Your task to perform on an android device: uninstall "Google Duo" Image 0: 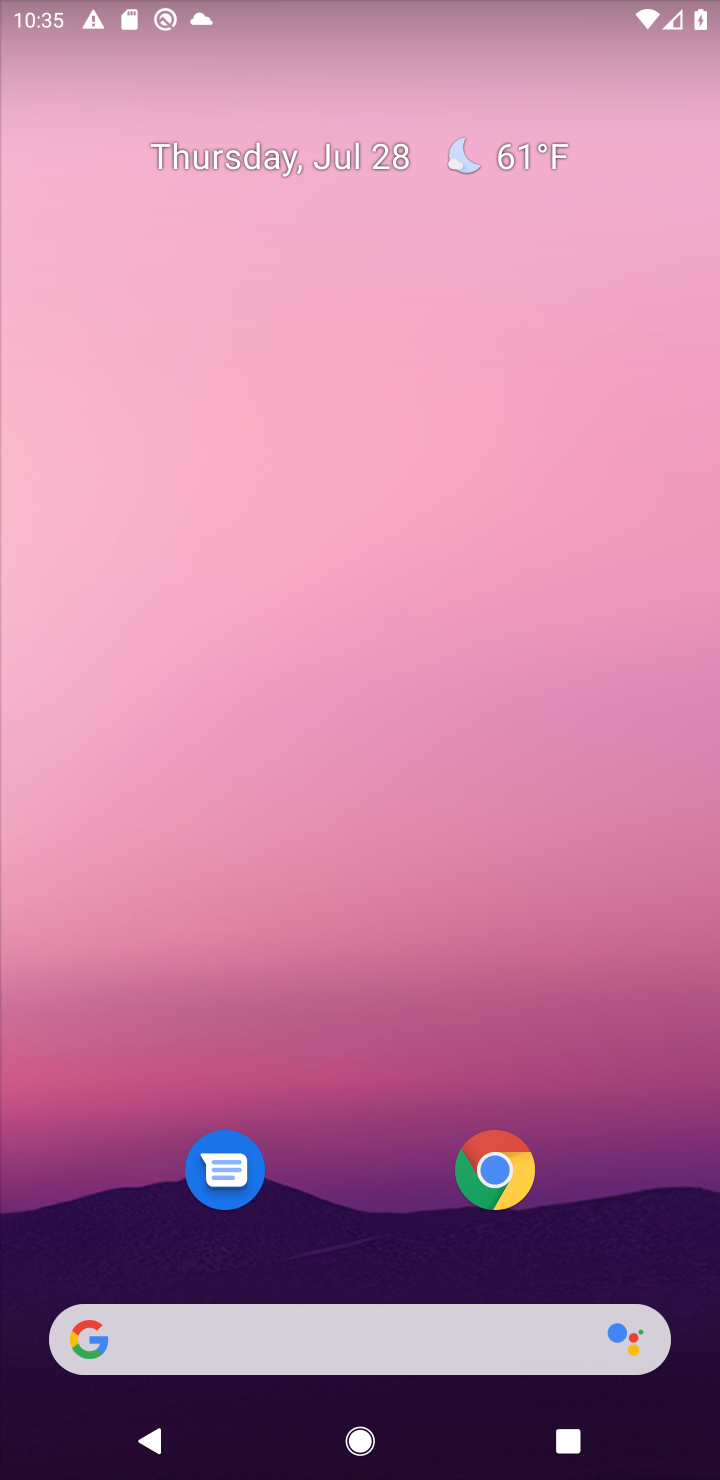
Step 0: drag from (311, 1250) to (297, 1318)
Your task to perform on an android device: uninstall "Google Duo" Image 1: 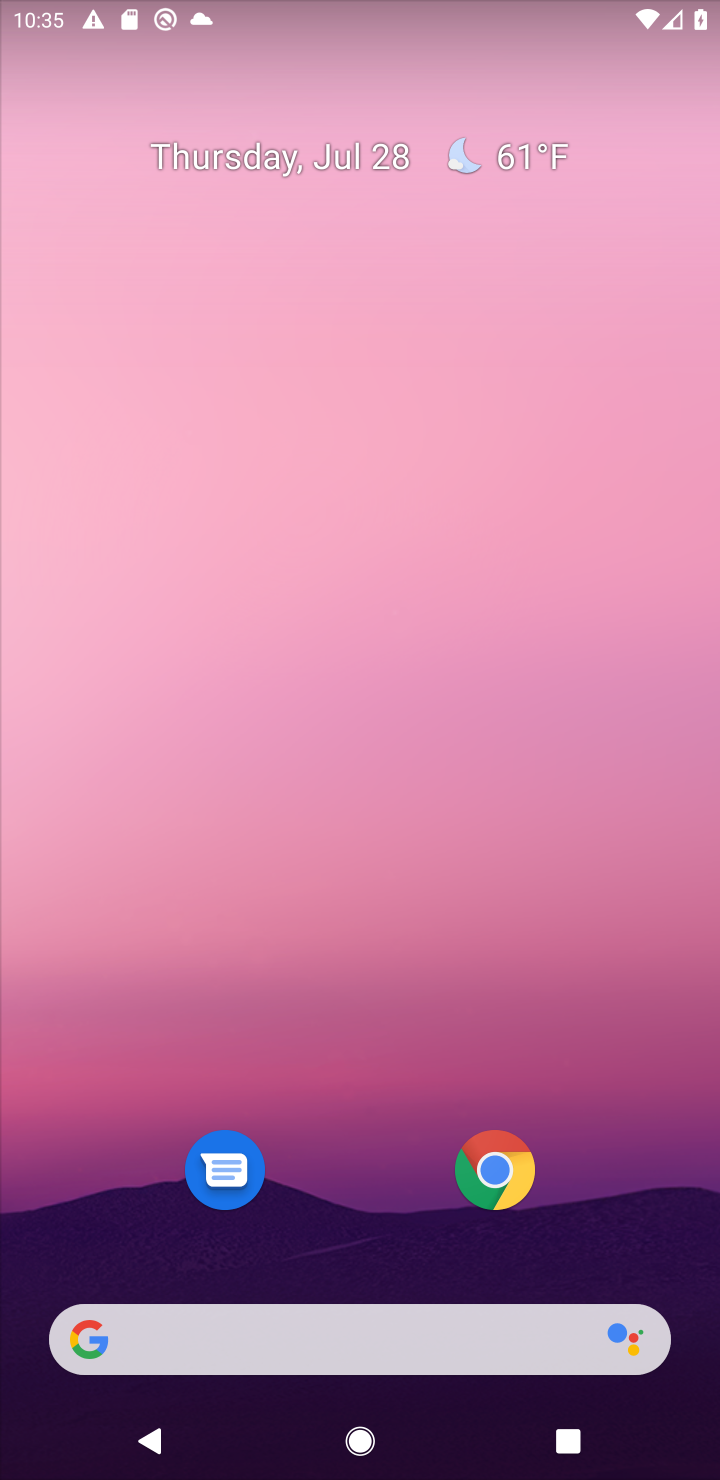
Step 1: drag from (354, 1051) to (626, 885)
Your task to perform on an android device: uninstall "Google Duo" Image 2: 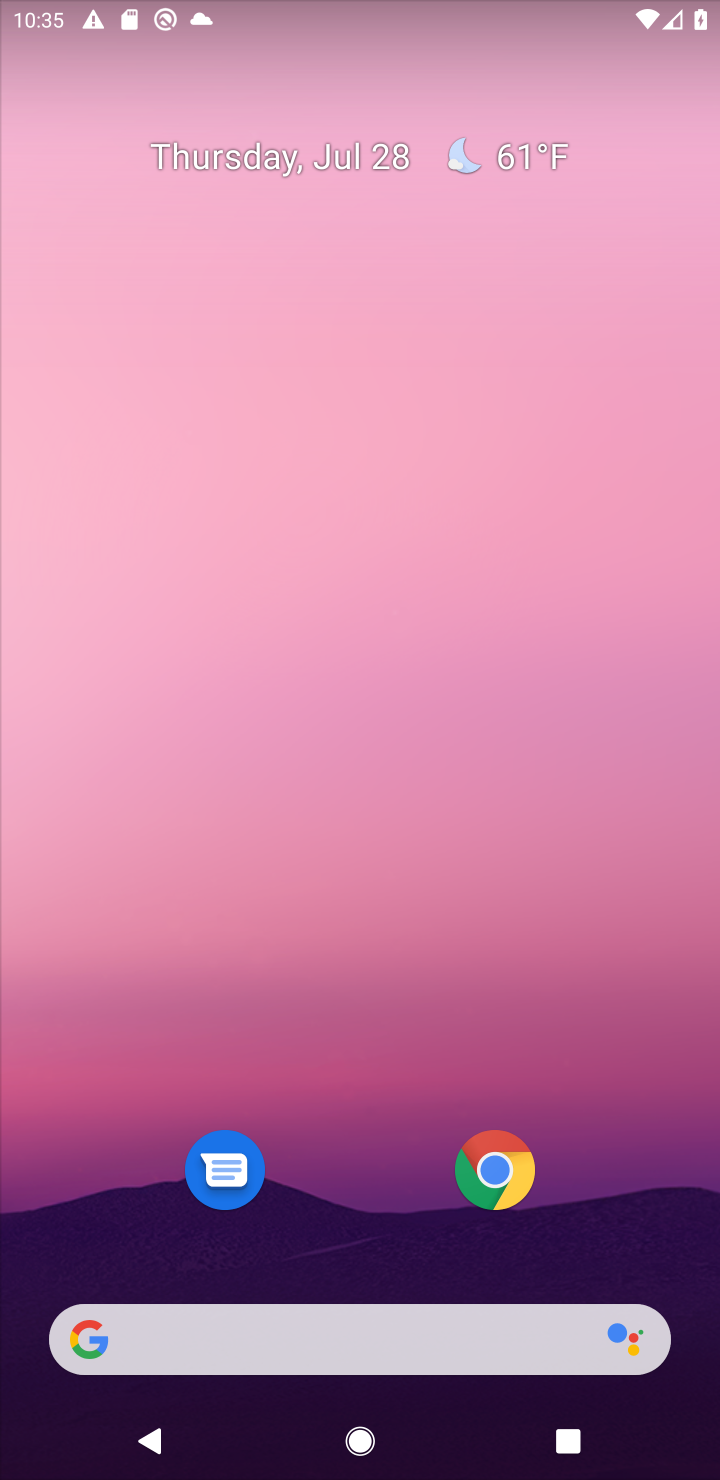
Step 2: drag from (340, 779) to (269, 12)
Your task to perform on an android device: uninstall "Google Duo" Image 3: 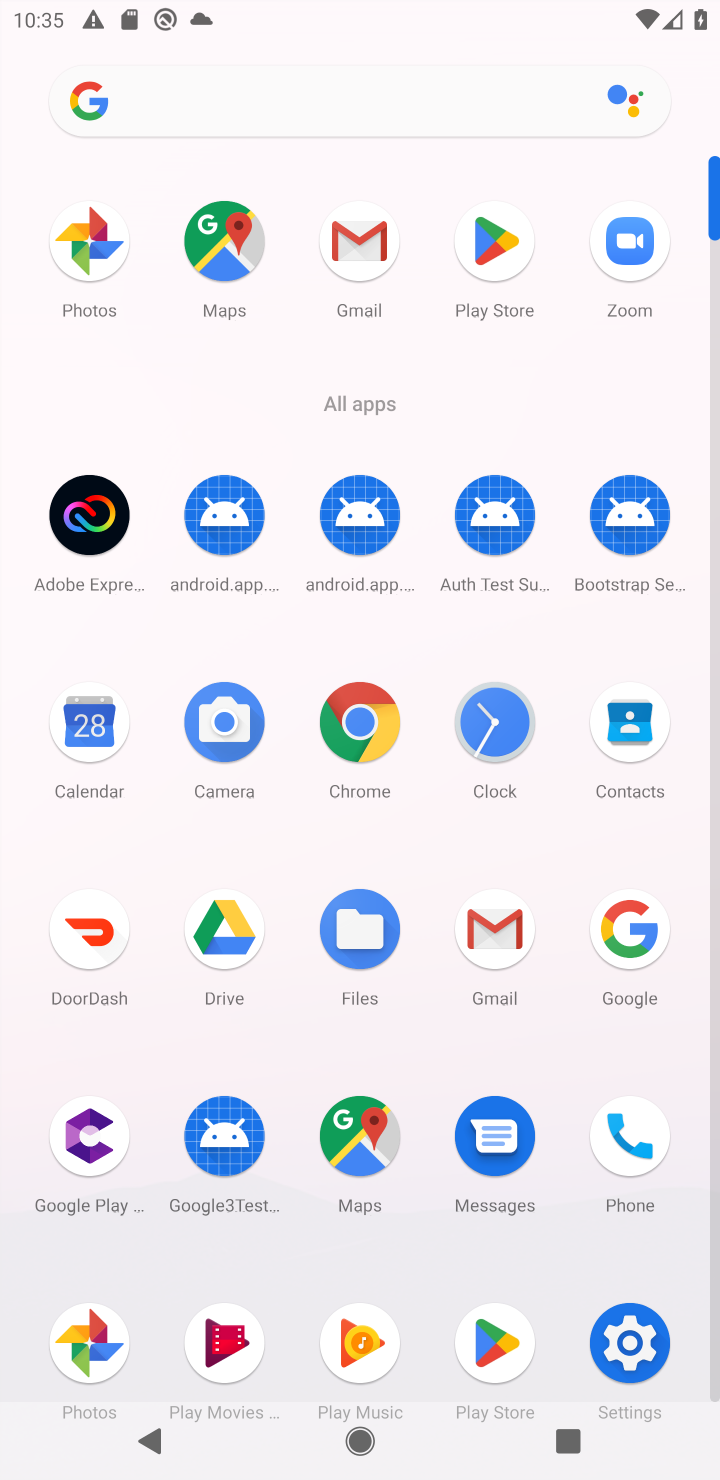
Step 3: click (496, 252)
Your task to perform on an android device: uninstall "Google Duo" Image 4: 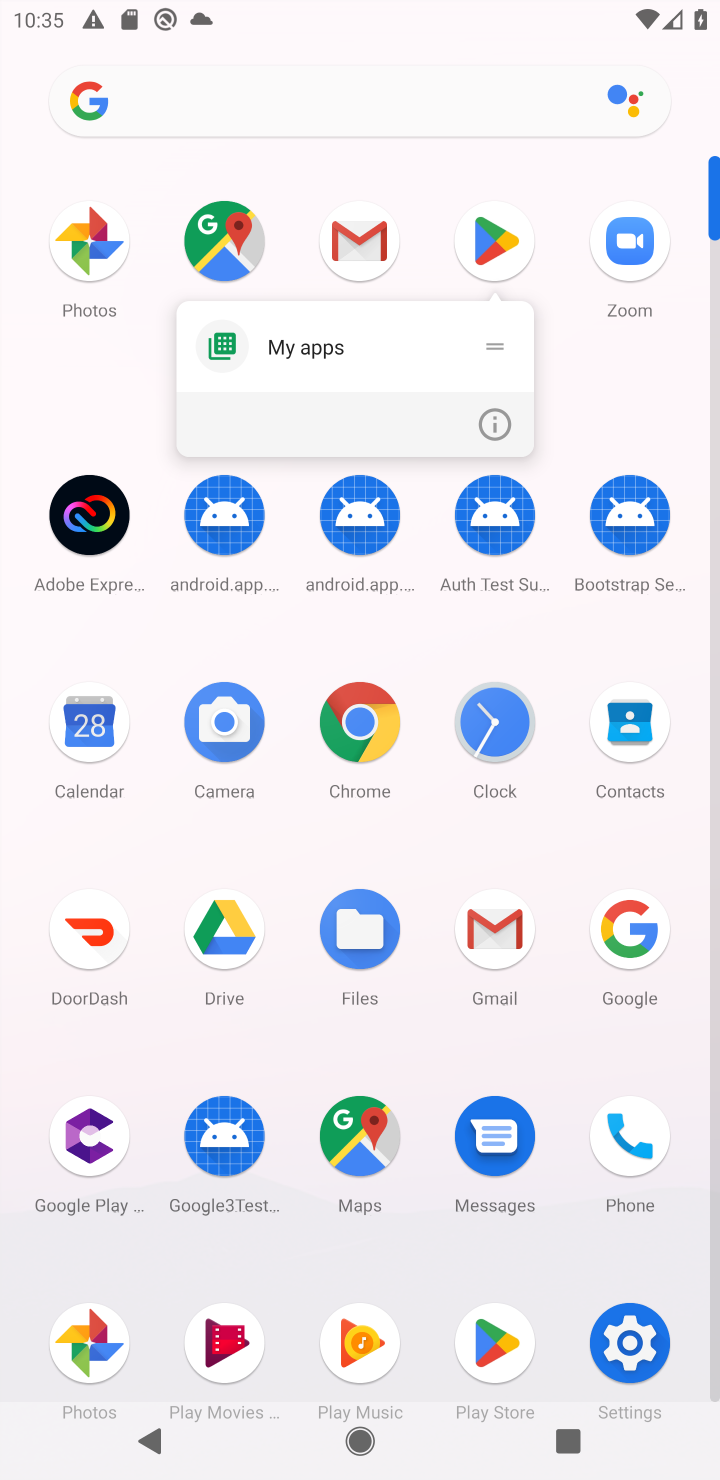
Step 4: click (495, 246)
Your task to perform on an android device: uninstall "Google Duo" Image 5: 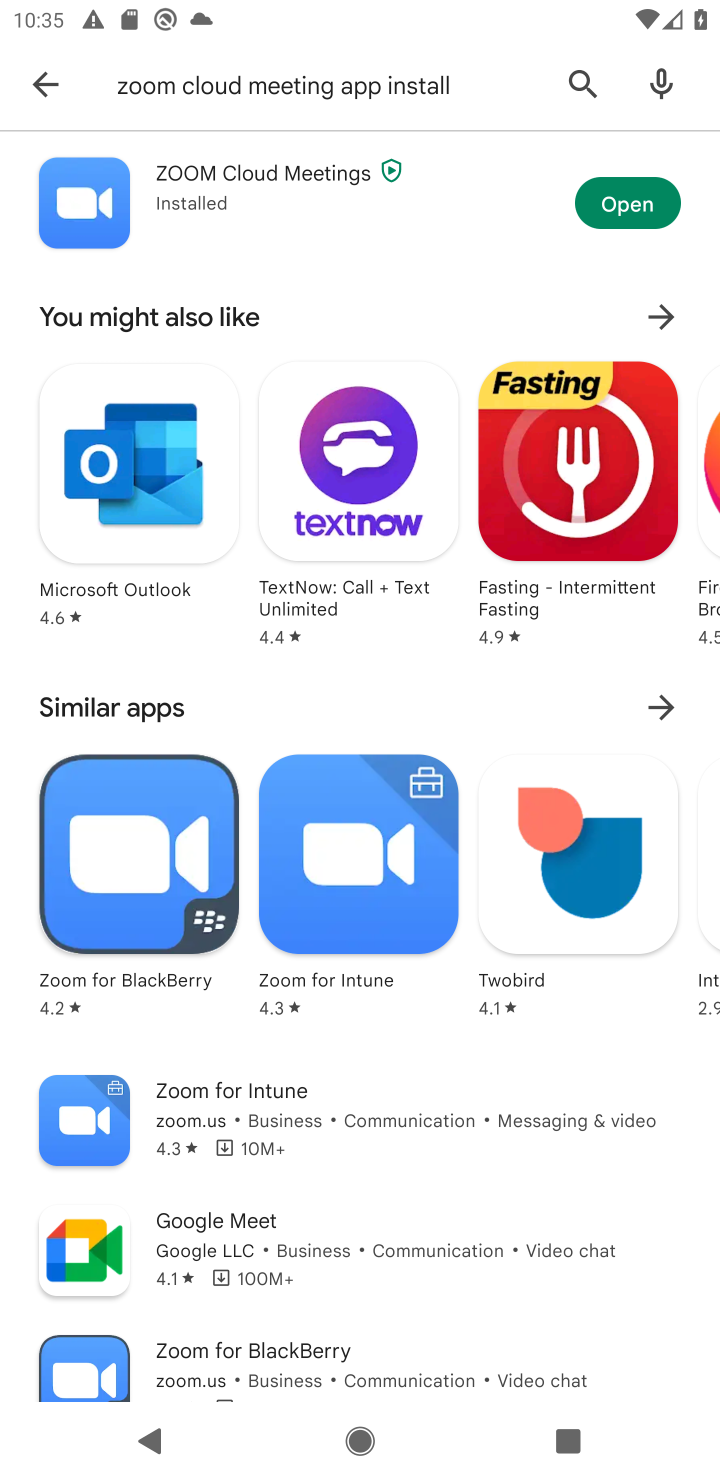
Step 5: click (313, 82)
Your task to perform on an android device: uninstall "Google Duo" Image 6: 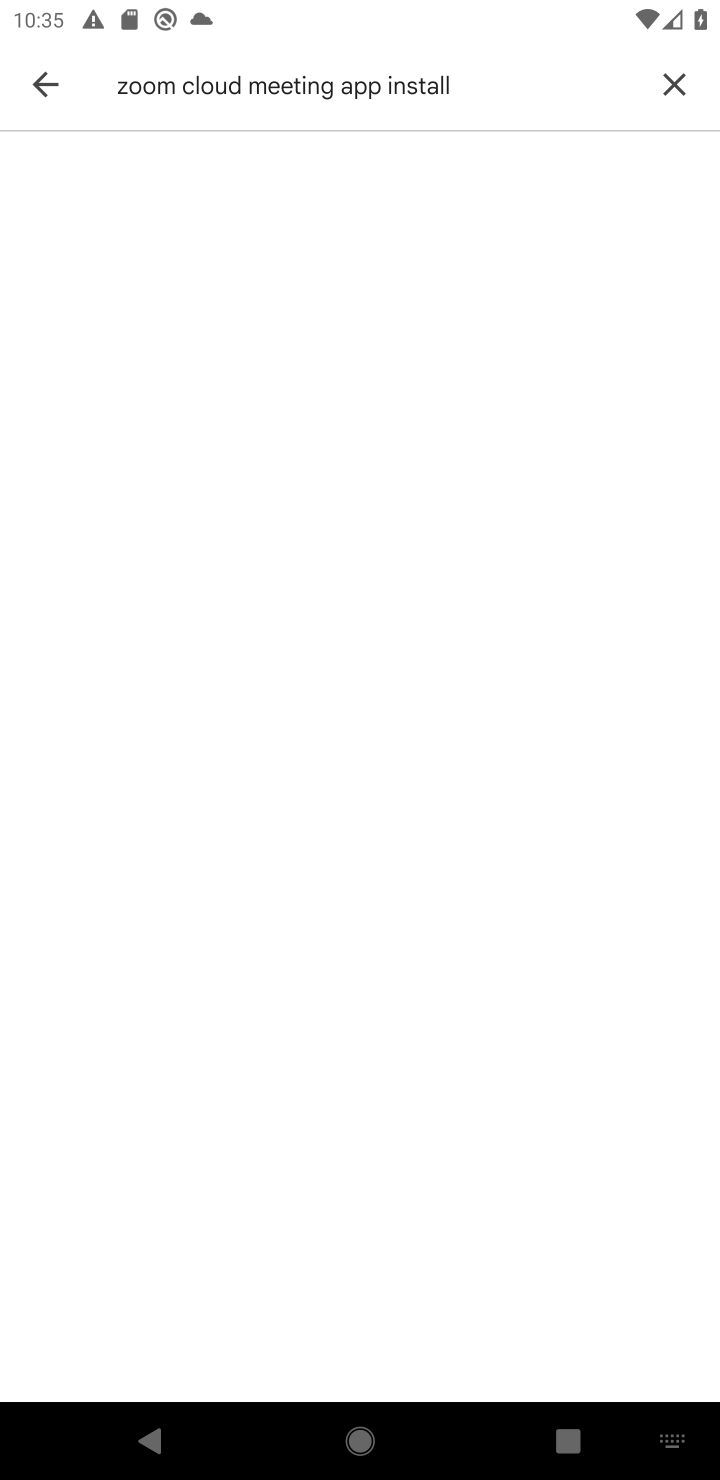
Step 6: click (670, 82)
Your task to perform on an android device: uninstall "Google Duo" Image 7: 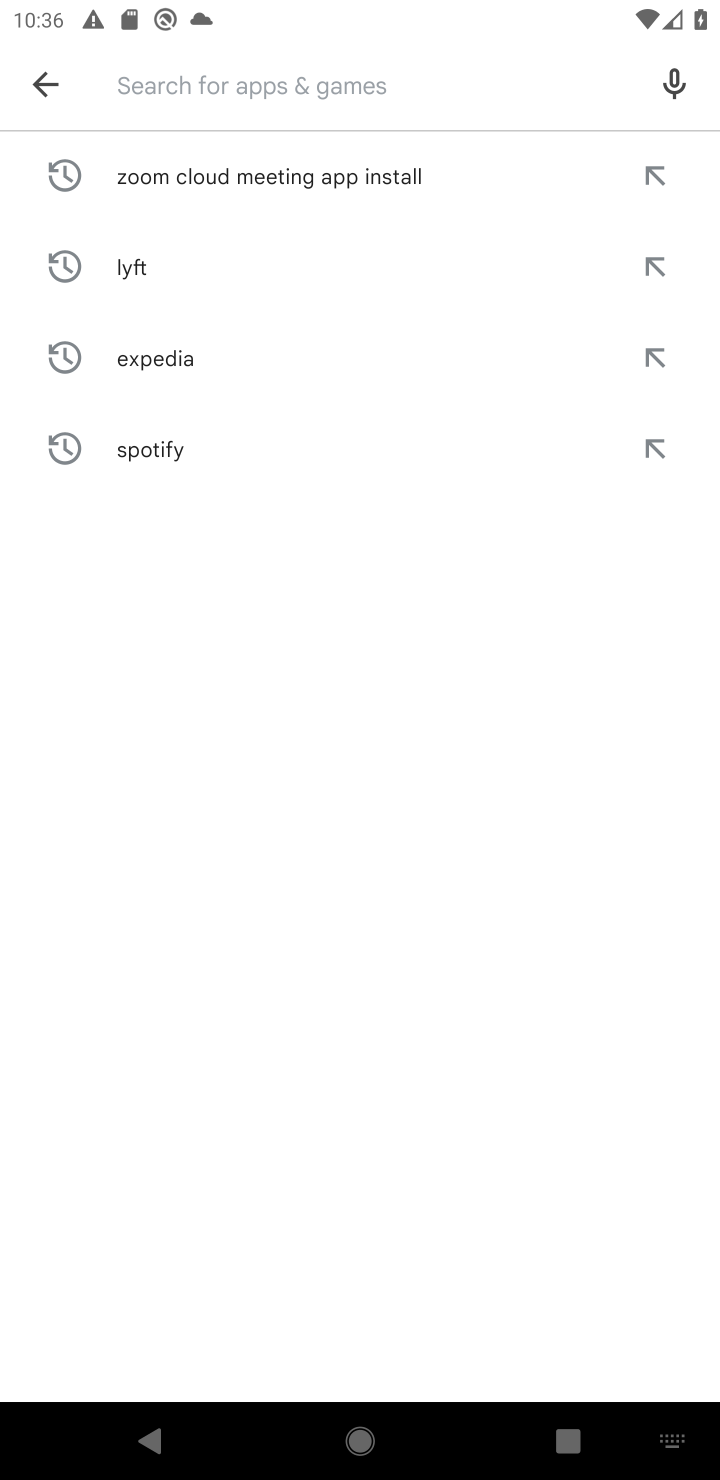
Step 7: type "google duo"
Your task to perform on an android device: uninstall "Google Duo" Image 8: 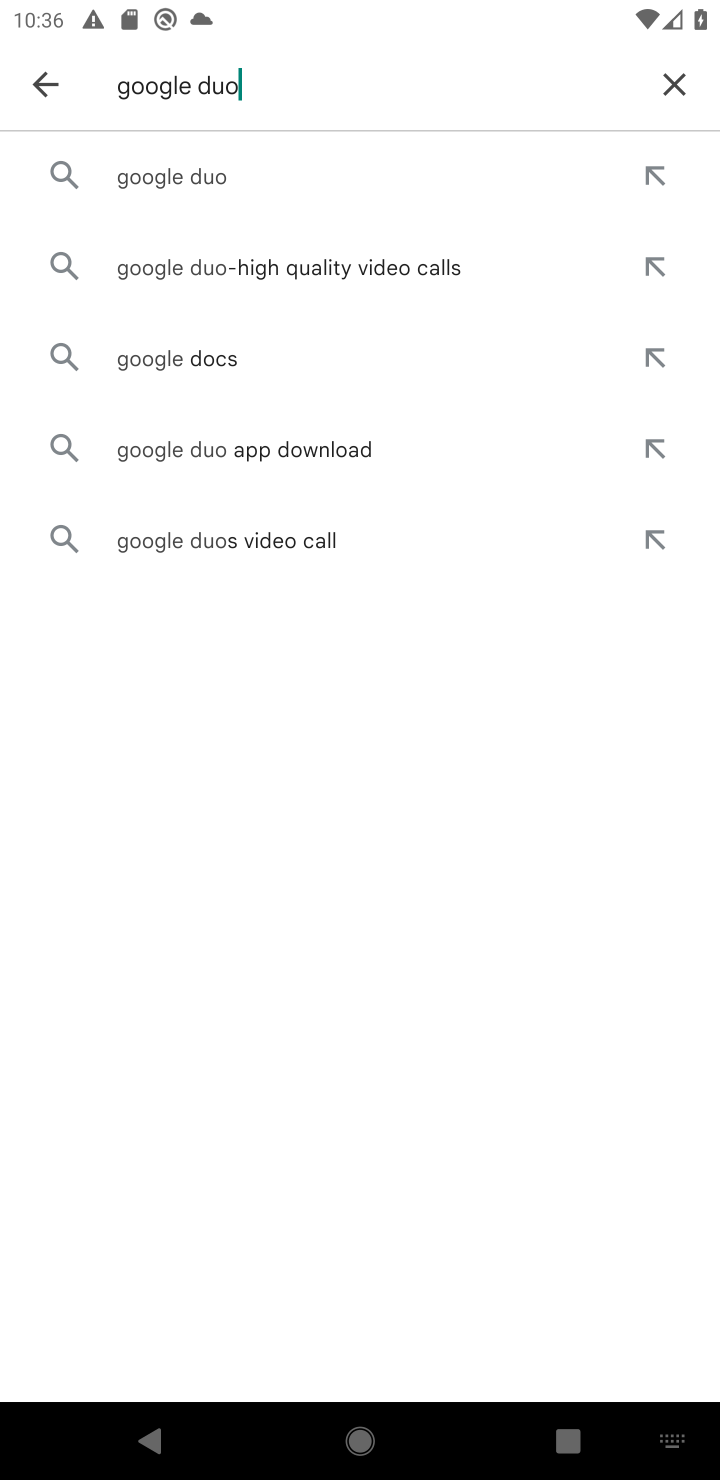
Step 8: click (222, 201)
Your task to perform on an android device: uninstall "Google Duo" Image 9: 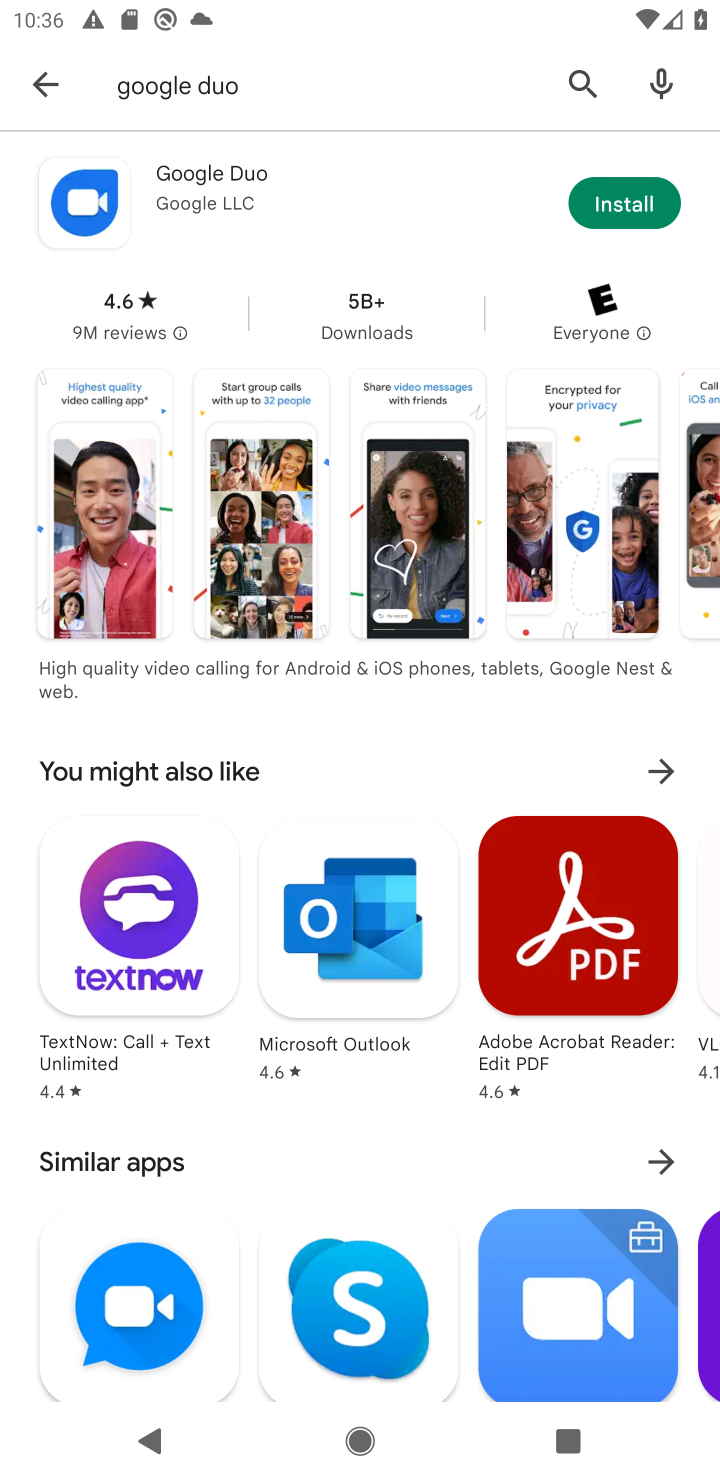
Step 9: task complete